Your task to perform on an android device: empty trash in google photos Image 0: 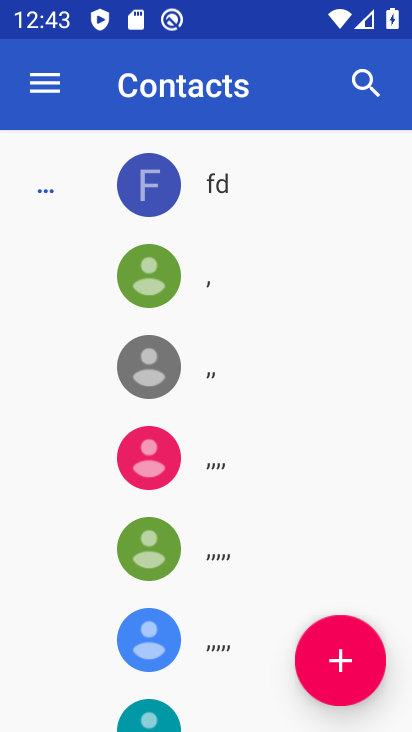
Step 0: drag from (251, 540) to (284, 229)
Your task to perform on an android device: empty trash in google photos Image 1: 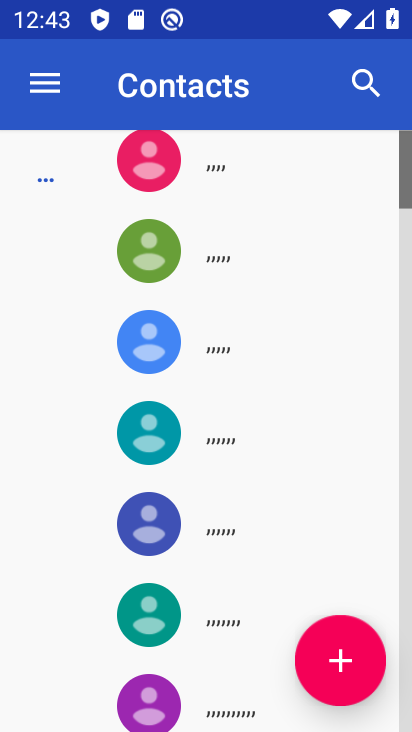
Step 1: press home button
Your task to perform on an android device: empty trash in google photos Image 2: 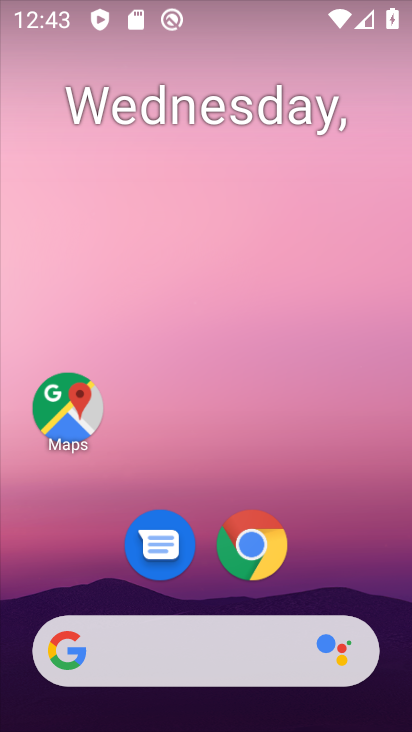
Step 2: drag from (322, 440) to (344, 100)
Your task to perform on an android device: empty trash in google photos Image 3: 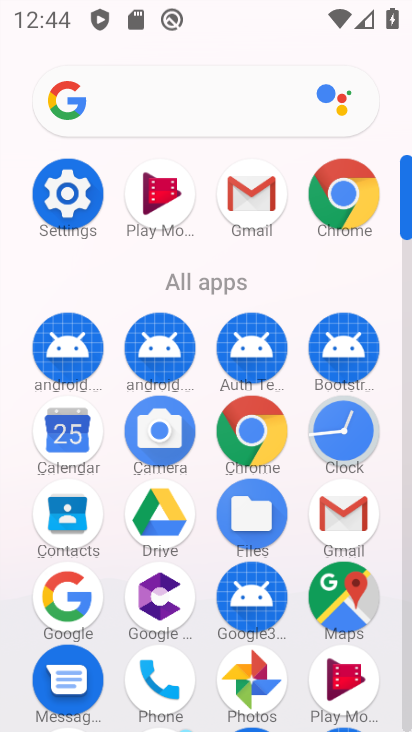
Step 3: click (241, 673)
Your task to perform on an android device: empty trash in google photos Image 4: 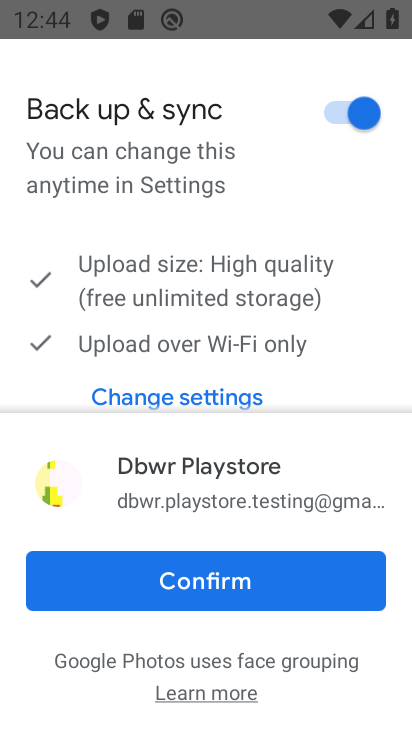
Step 4: click (232, 570)
Your task to perform on an android device: empty trash in google photos Image 5: 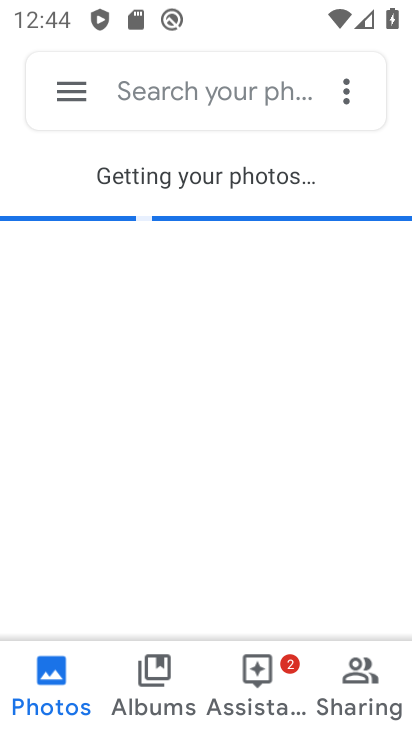
Step 5: click (81, 82)
Your task to perform on an android device: empty trash in google photos Image 6: 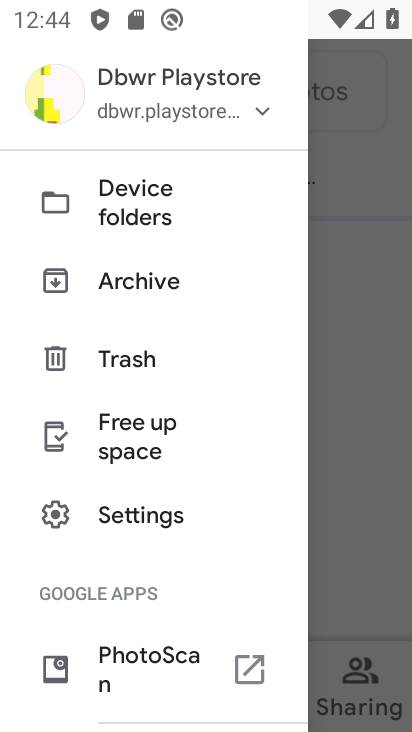
Step 6: click (141, 368)
Your task to perform on an android device: empty trash in google photos Image 7: 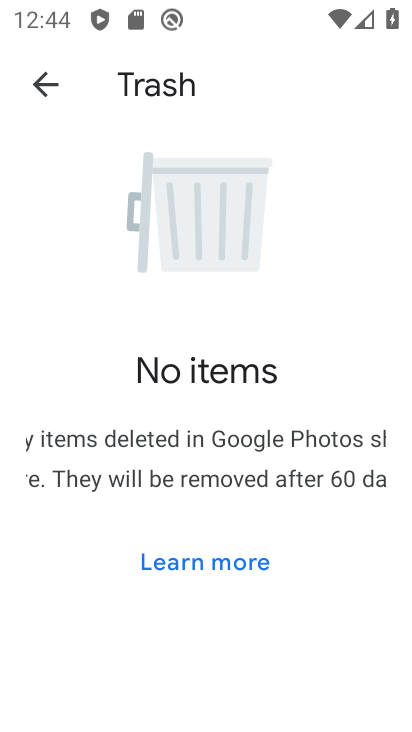
Step 7: task complete